Your task to perform on an android device: turn off smart reply in the gmail app Image 0: 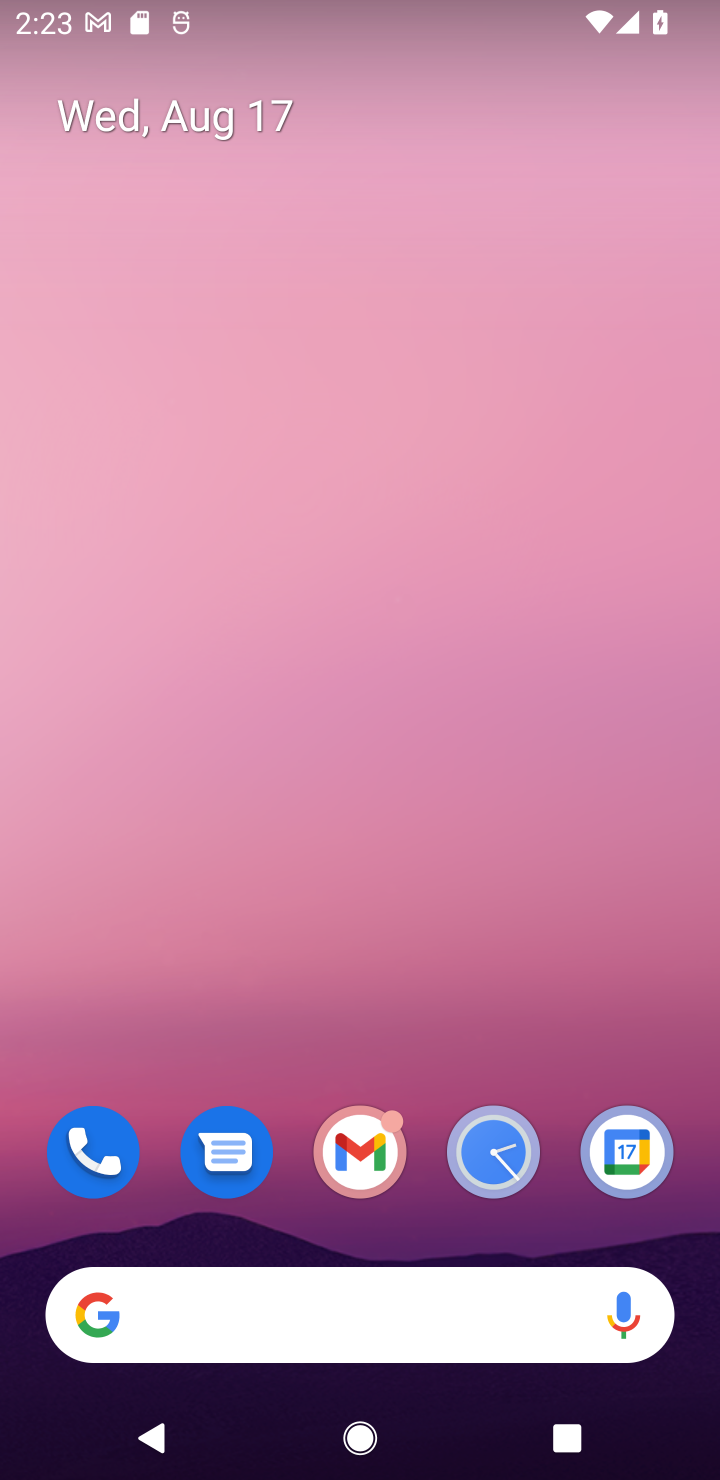
Step 0: drag from (571, 1245) to (329, 102)
Your task to perform on an android device: turn off smart reply in the gmail app Image 1: 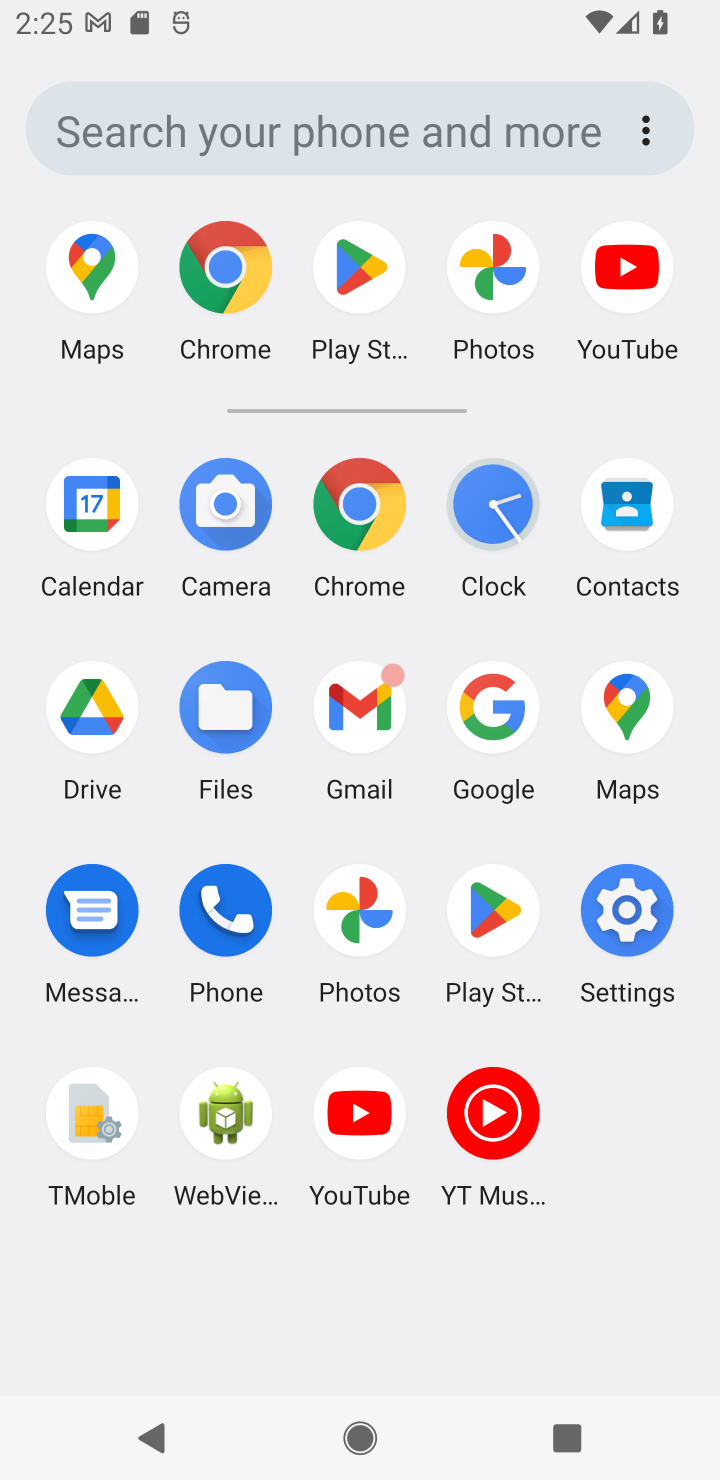
Step 1: click (339, 709)
Your task to perform on an android device: turn off smart reply in the gmail app Image 2: 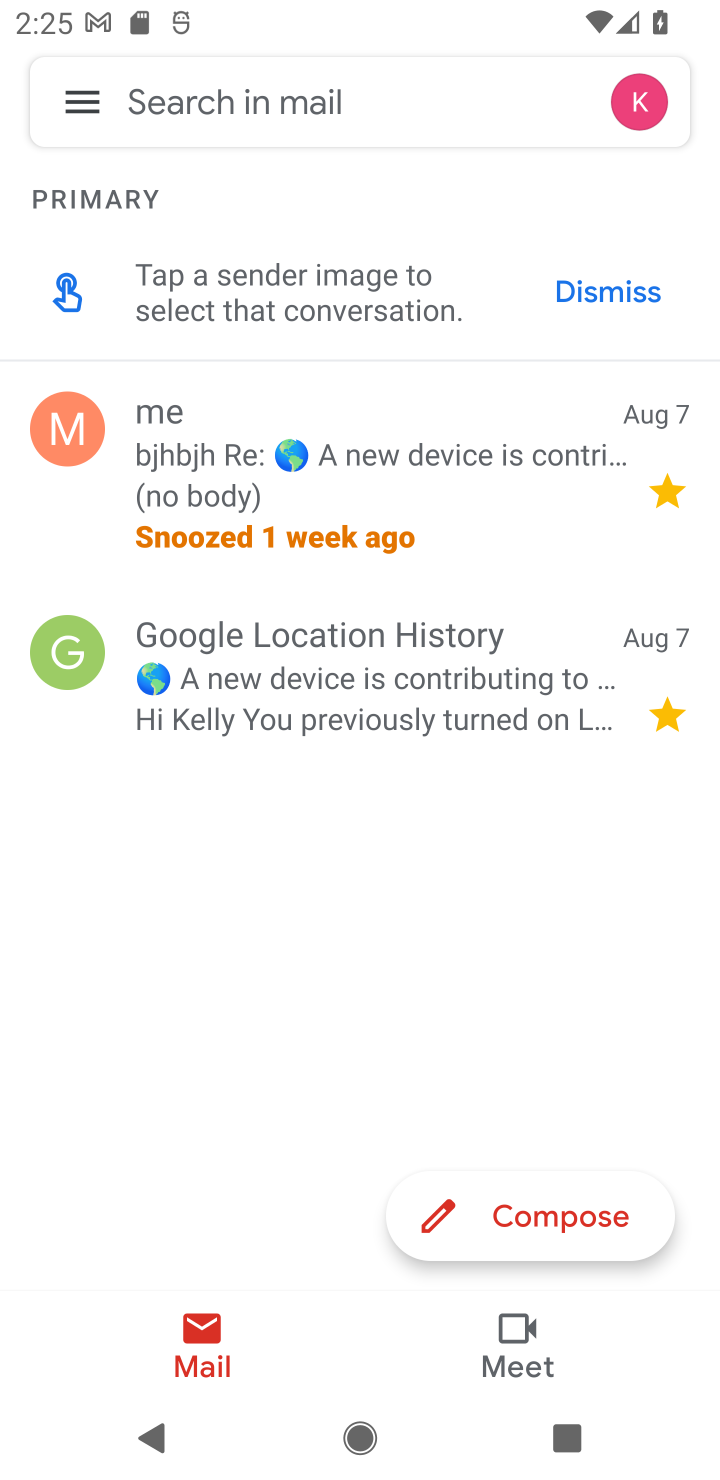
Step 2: click (78, 108)
Your task to perform on an android device: turn off smart reply in the gmail app Image 3: 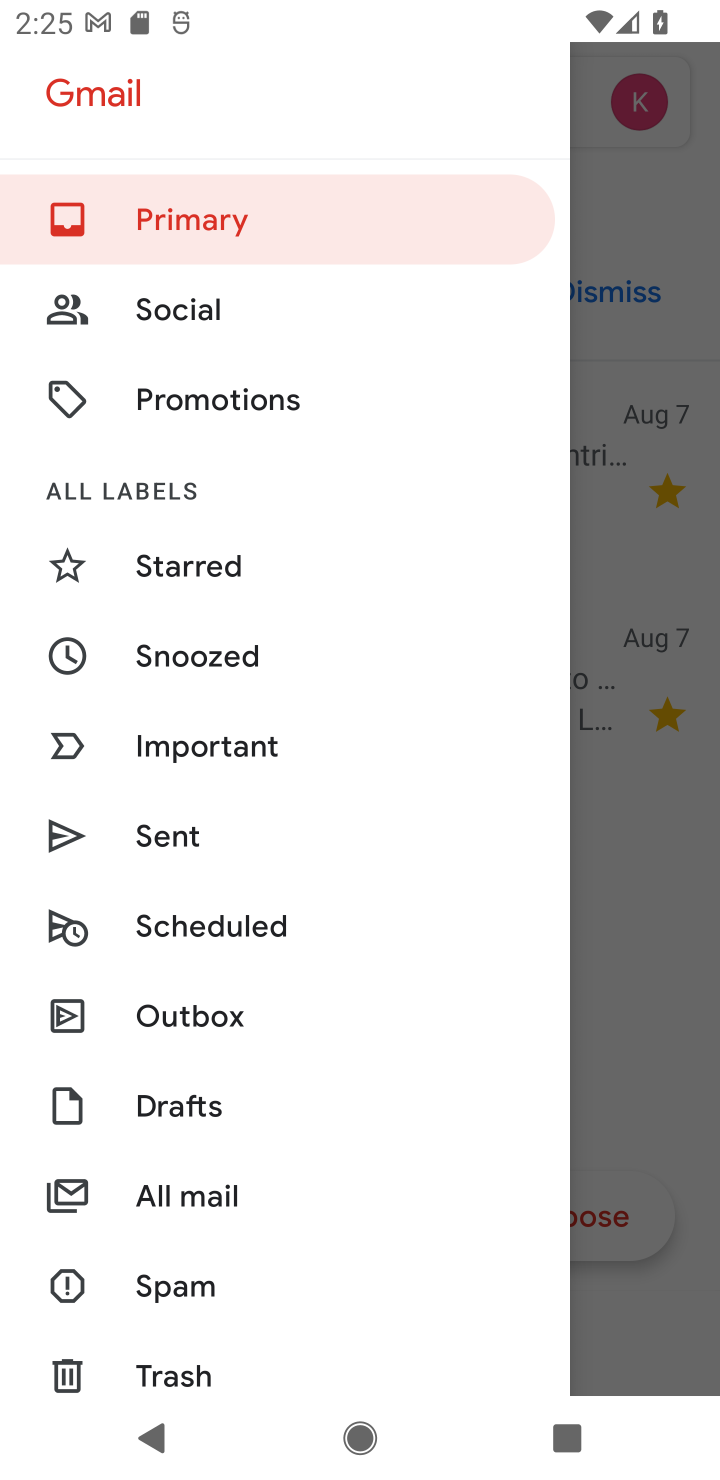
Step 3: drag from (216, 1316) to (266, 88)
Your task to perform on an android device: turn off smart reply in the gmail app Image 4: 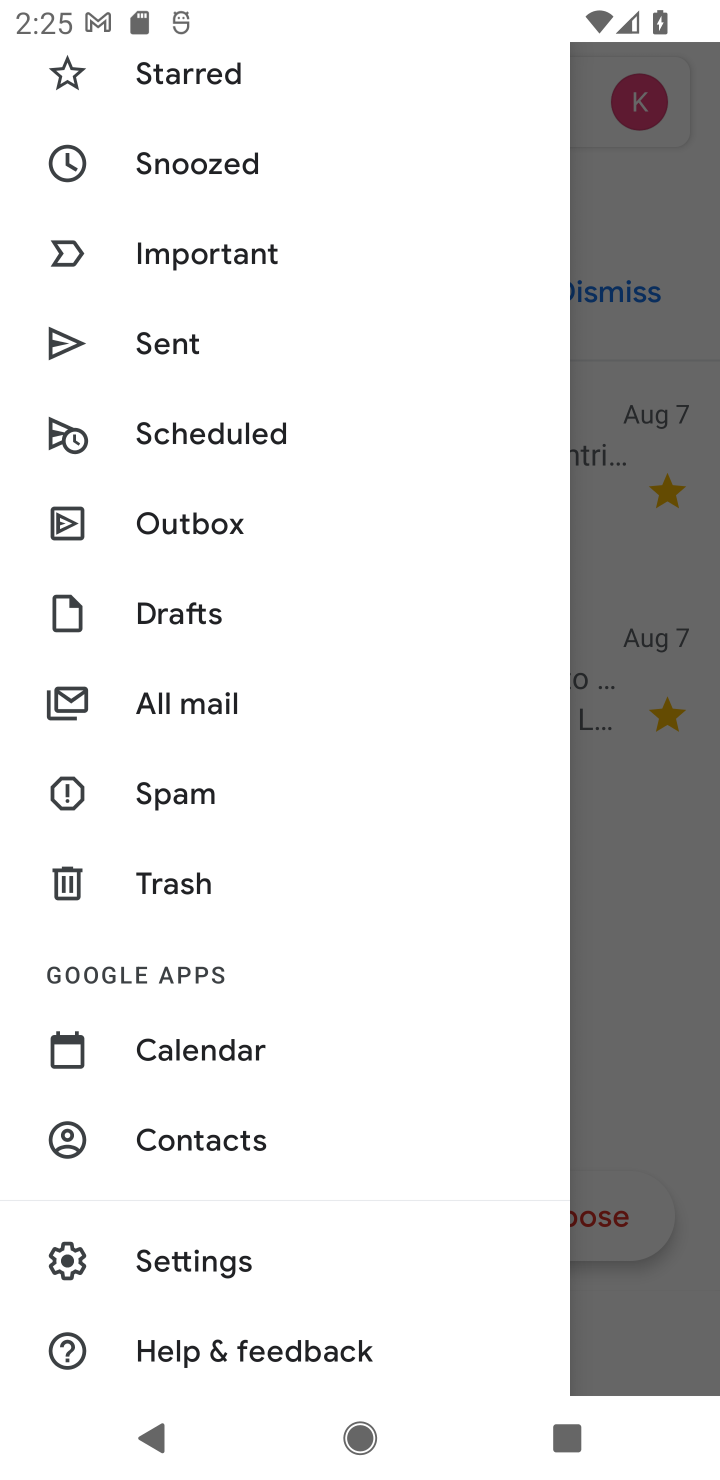
Step 4: click (185, 1266)
Your task to perform on an android device: turn off smart reply in the gmail app Image 5: 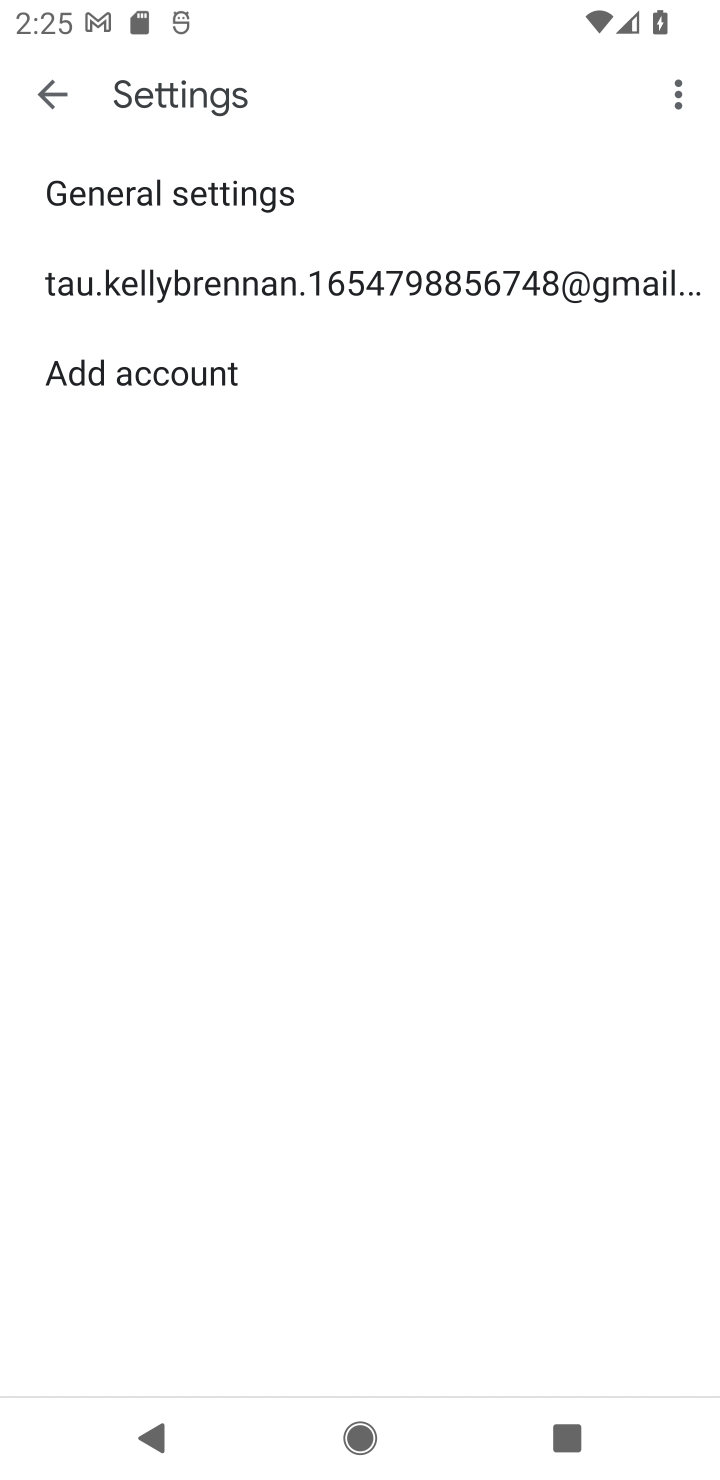
Step 5: click (256, 275)
Your task to perform on an android device: turn off smart reply in the gmail app Image 6: 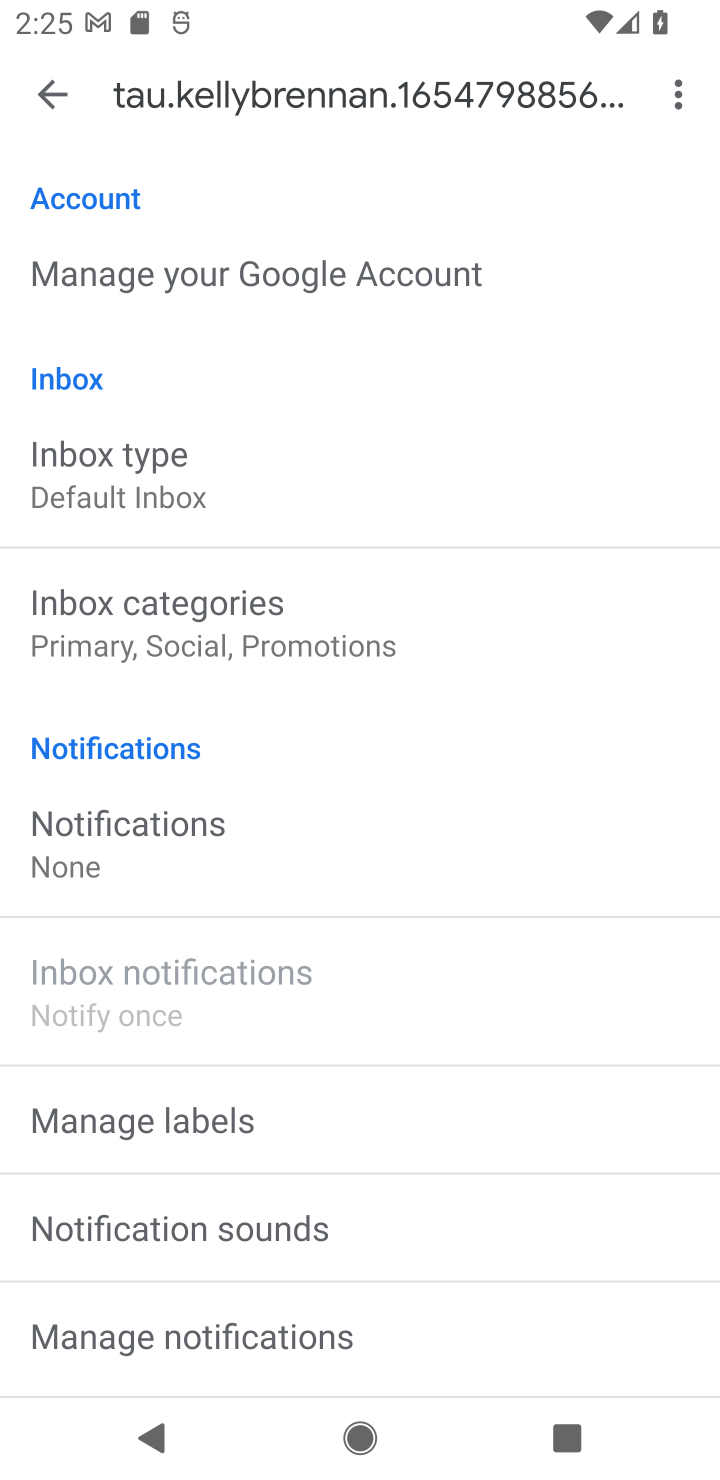
Step 6: drag from (196, 1283) to (216, 128)
Your task to perform on an android device: turn off smart reply in the gmail app Image 7: 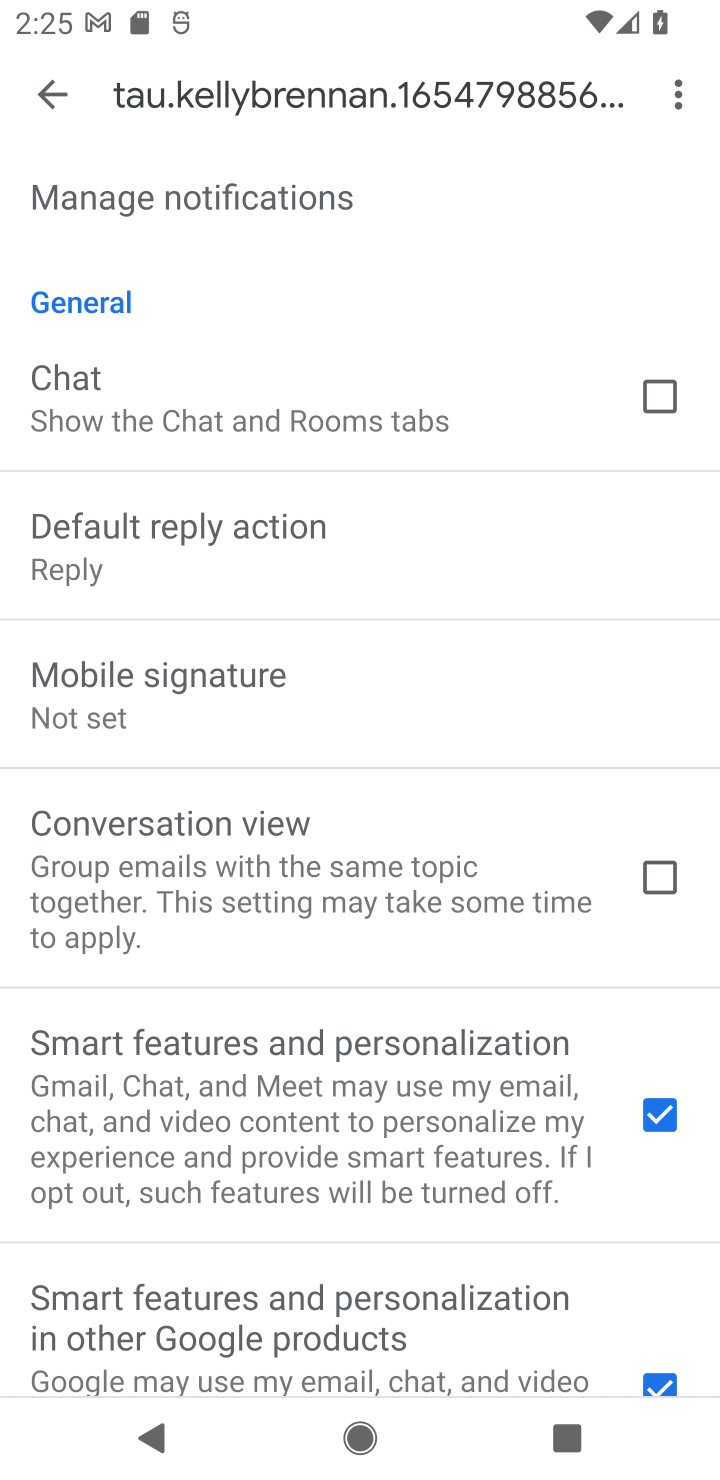
Step 7: drag from (240, 1077) to (217, 204)
Your task to perform on an android device: turn off smart reply in the gmail app Image 8: 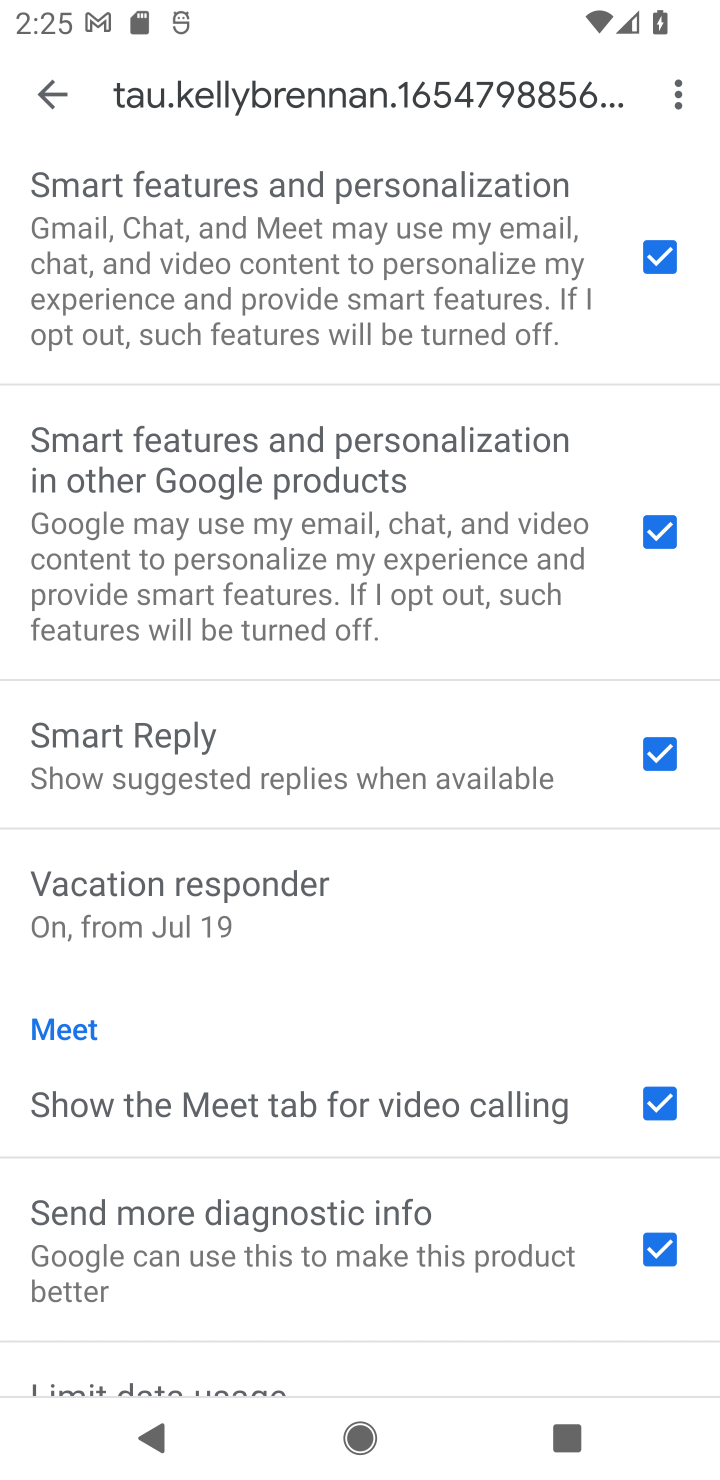
Step 8: drag from (314, 1168) to (212, 131)
Your task to perform on an android device: turn off smart reply in the gmail app Image 9: 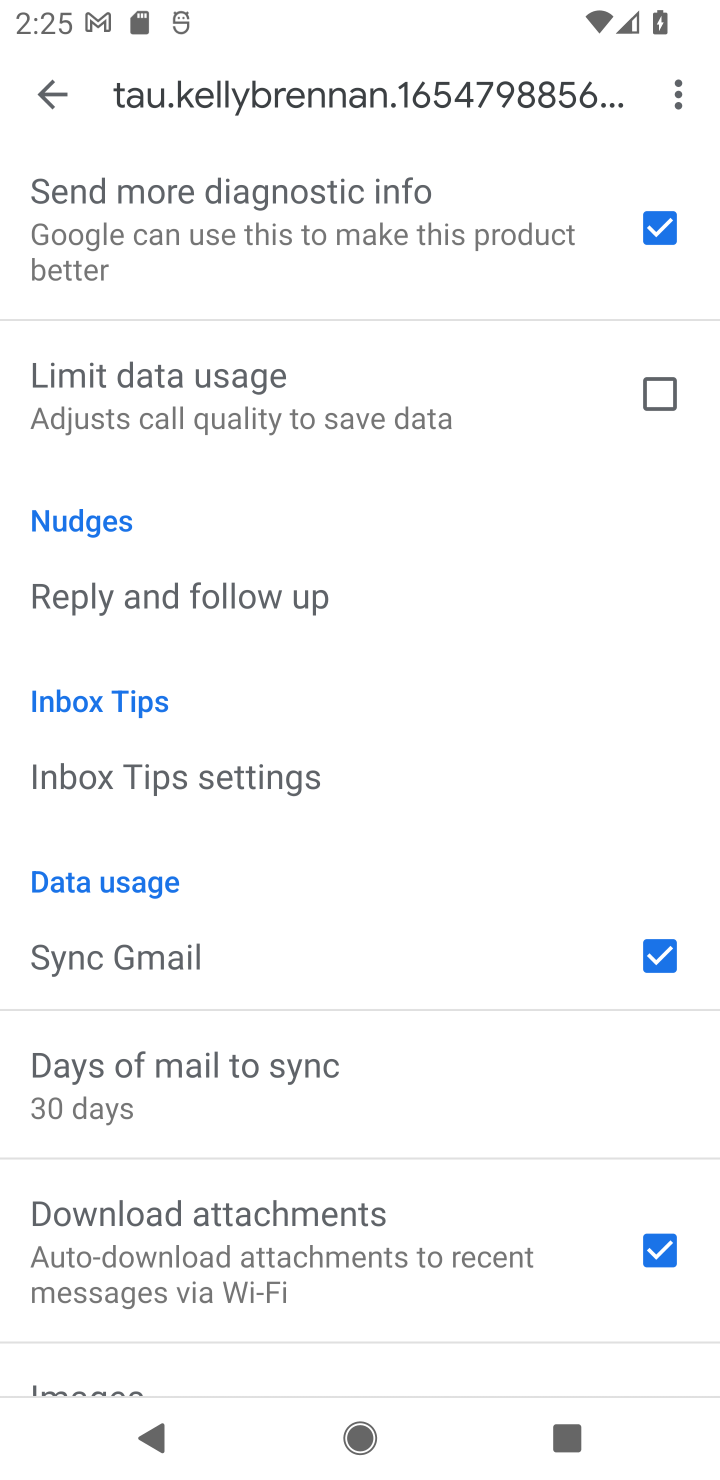
Step 9: drag from (295, 233) to (342, 846)
Your task to perform on an android device: turn off smart reply in the gmail app Image 10: 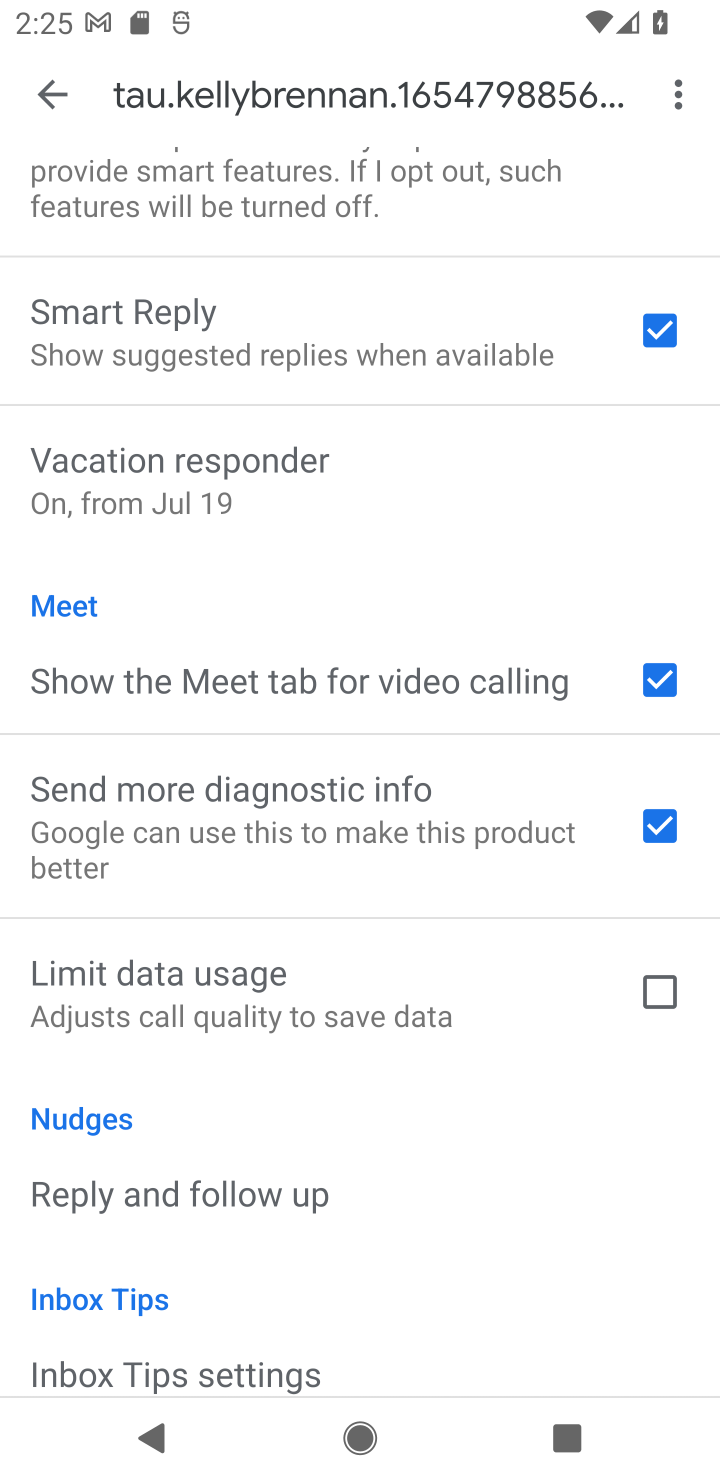
Step 10: click (338, 337)
Your task to perform on an android device: turn off smart reply in the gmail app Image 11: 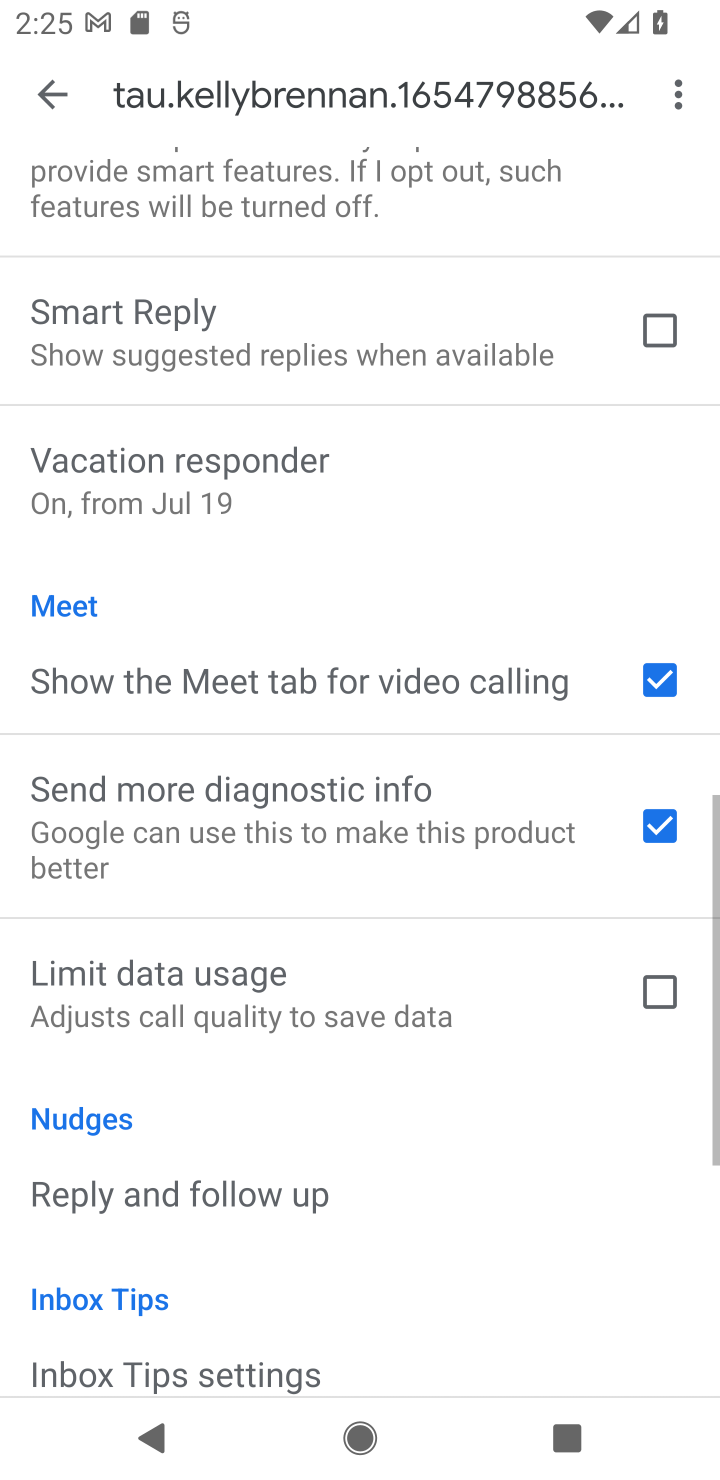
Step 11: task complete